Your task to perform on an android device: change the upload size in google photos Image 0: 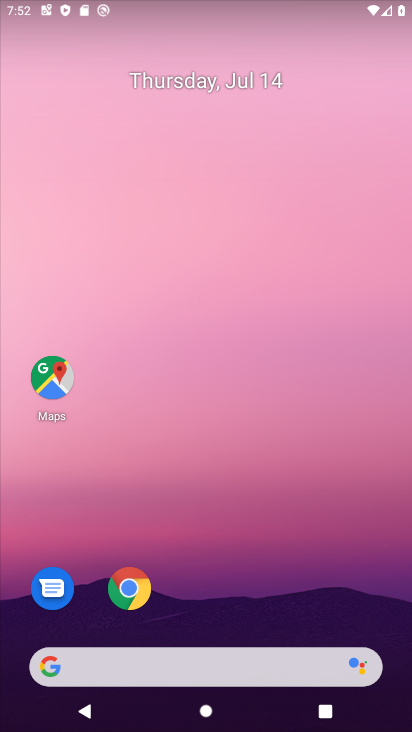
Step 0: drag from (381, 642) to (215, 0)
Your task to perform on an android device: change the upload size in google photos Image 1: 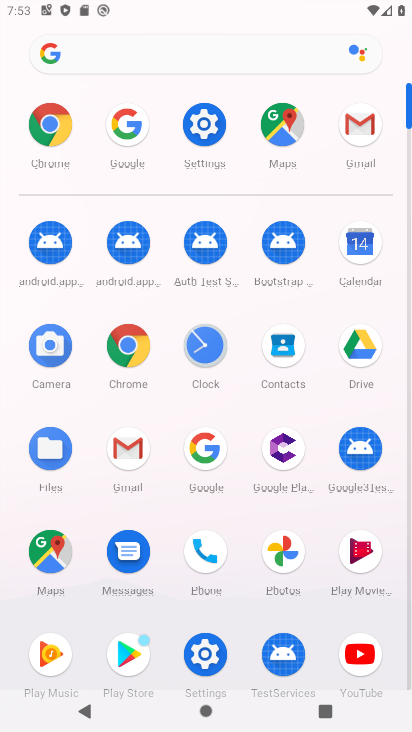
Step 1: click (285, 565)
Your task to perform on an android device: change the upload size in google photos Image 2: 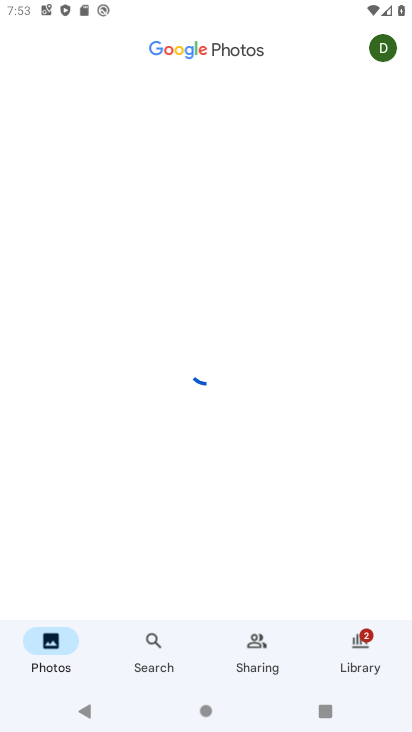
Step 2: click (372, 41)
Your task to perform on an android device: change the upload size in google photos Image 3: 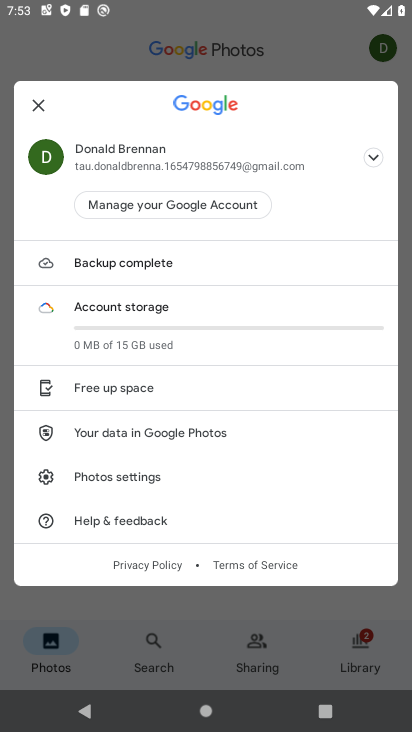
Step 3: click (107, 473)
Your task to perform on an android device: change the upload size in google photos Image 4: 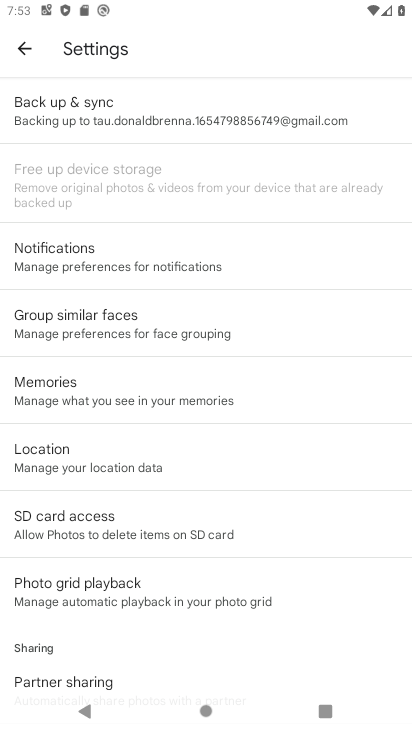
Step 4: click (134, 122)
Your task to perform on an android device: change the upload size in google photos Image 5: 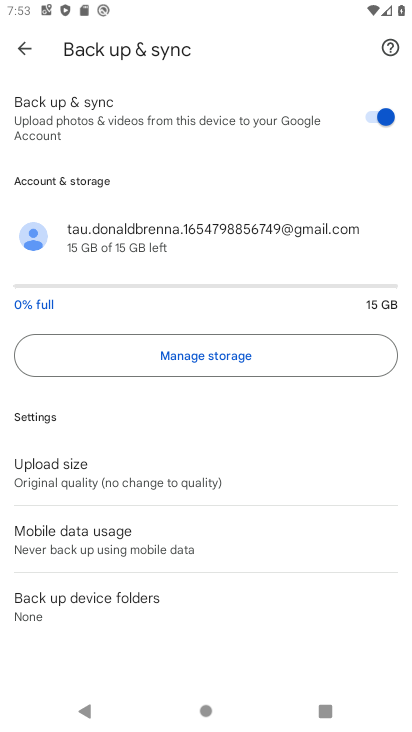
Step 5: click (73, 461)
Your task to perform on an android device: change the upload size in google photos Image 6: 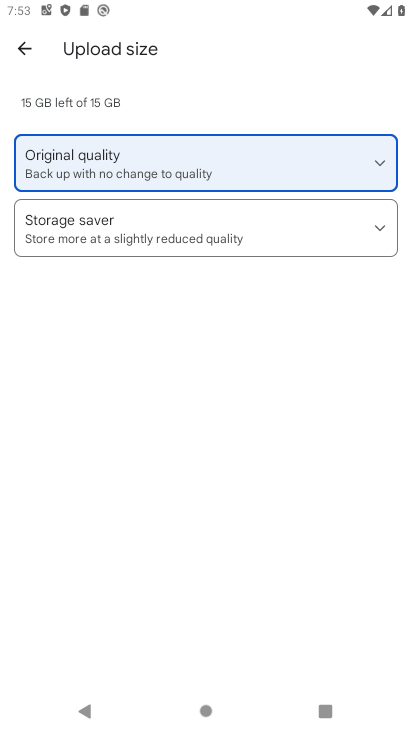
Step 6: click (116, 238)
Your task to perform on an android device: change the upload size in google photos Image 7: 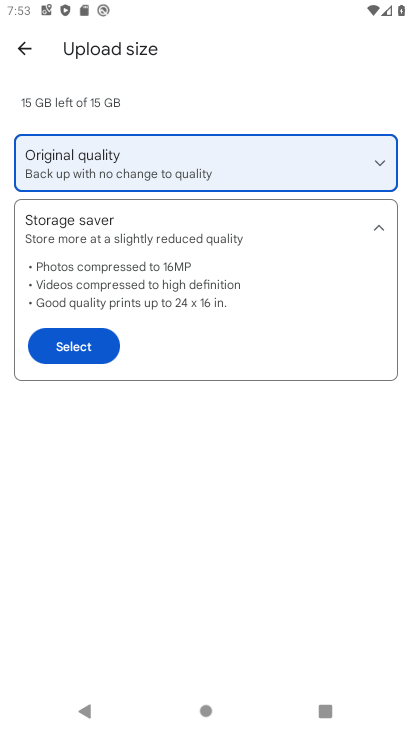
Step 7: click (61, 335)
Your task to perform on an android device: change the upload size in google photos Image 8: 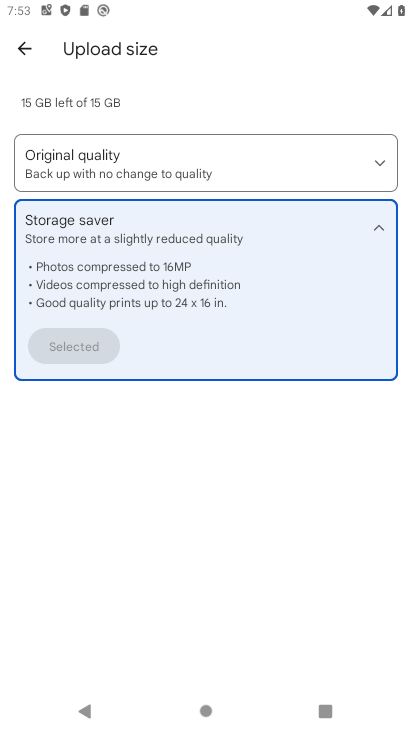
Step 8: task complete